Your task to perform on an android device: change keyboard looks Image 0: 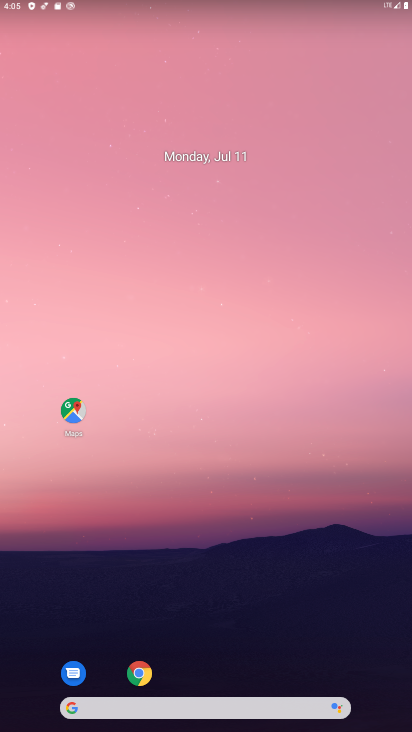
Step 0: drag from (309, 628) to (268, 118)
Your task to perform on an android device: change keyboard looks Image 1: 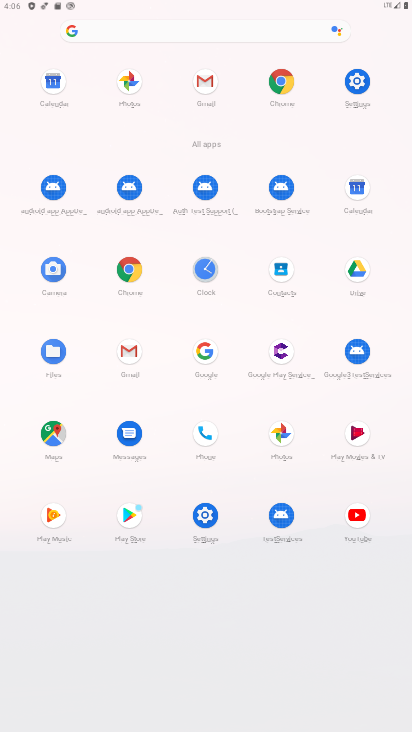
Step 1: click (355, 85)
Your task to perform on an android device: change keyboard looks Image 2: 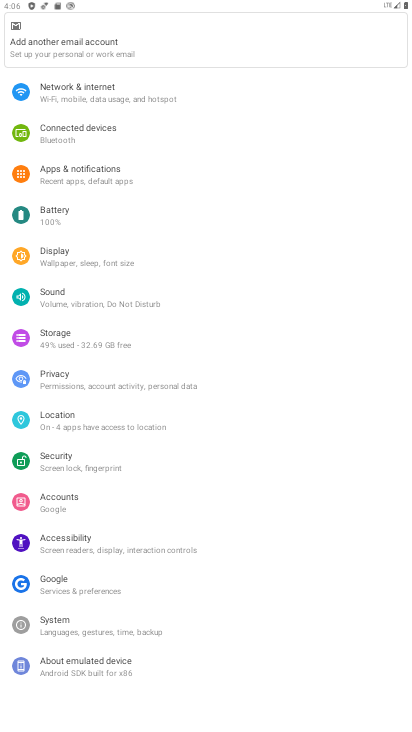
Step 2: click (121, 626)
Your task to perform on an android device: change keyboard looks Image 3: 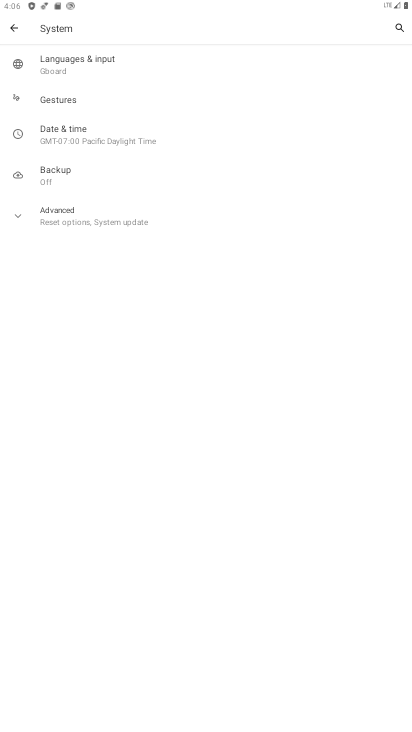
Step 3: click (98, 62)
Your task to perform on an android device: change keyboard looks Image 4: 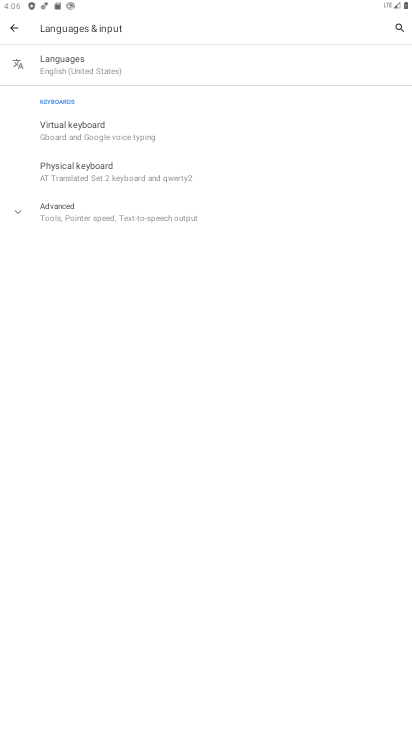
Step 4: click (90, 97)
Your task to perform on an android device: change keyboard looks Image 5: 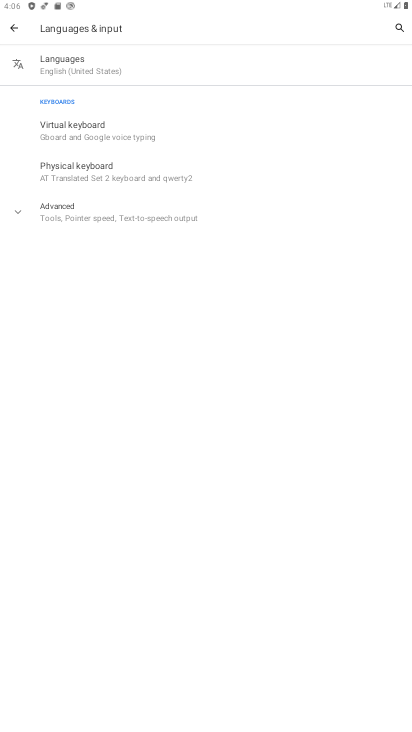
Step 5: click (75, 135)
Your task to perform on an android device: change keyboard looks Image 6: 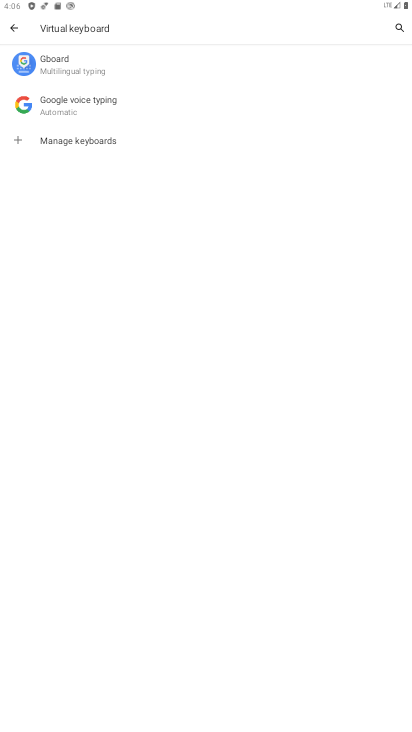
Step 6: click (68, 71)
Your task to perform on an android device: change keyboard looks Image 7: 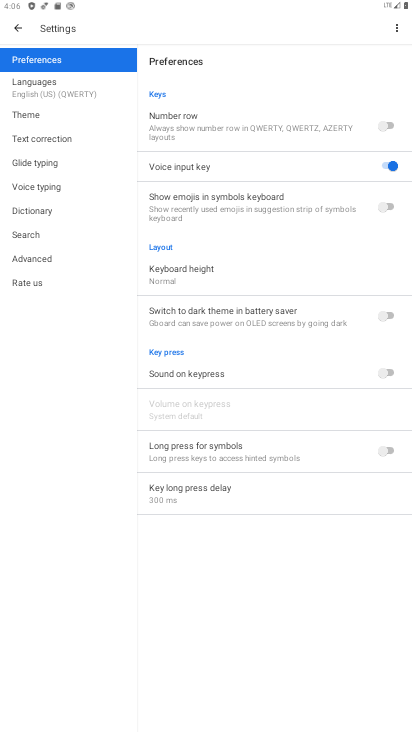
Step 7: click (38, 115)
Your task to perform on an android device: change keyboard looks Image 8: 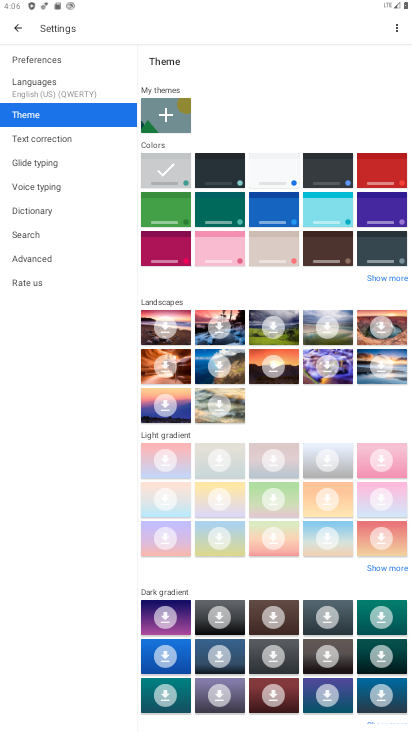
Step 8: click (275, 172)
Your task to perform on an android device: change keyboard looks Image 9: 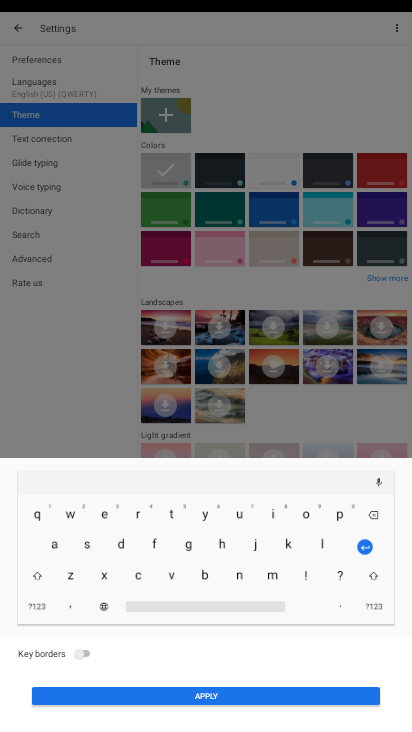
Step 9: click (258, 700)
Your task to perform on an android device: change keyboard looks Image 10: 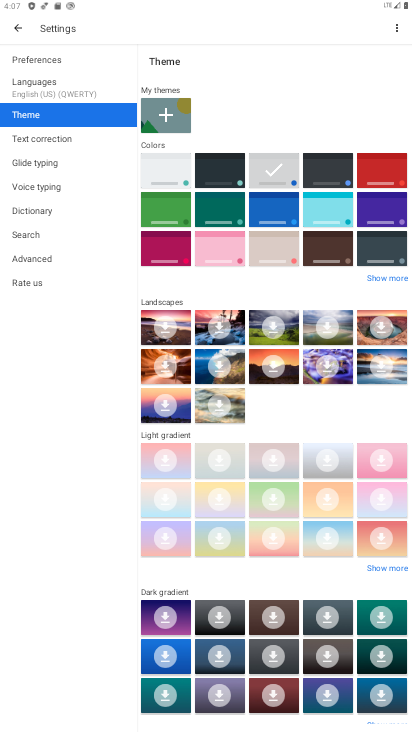
Step 10: task complete